Your task to perform on an android device: Open Google Chrome Image 0: 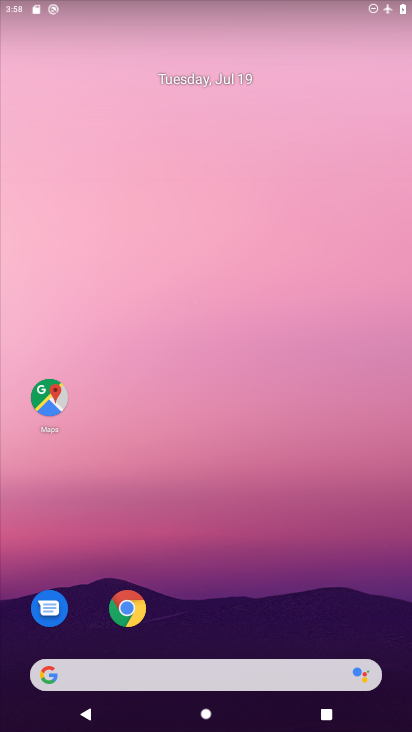
Step 0: drag from (265, 633) to (264, 105)
Your task to perform on an android device: Open Google Chrome Image 1: 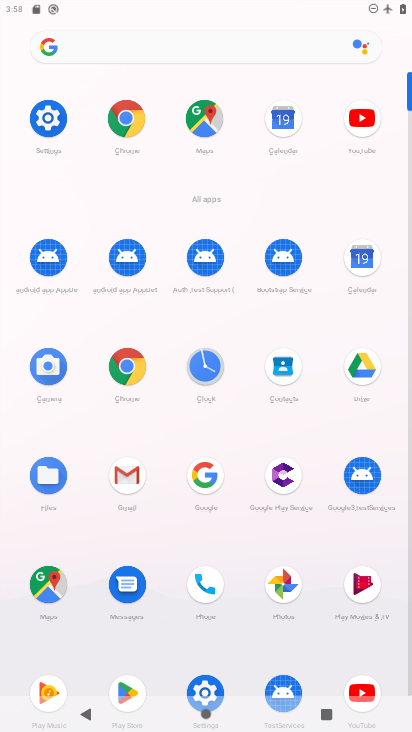
Step 1: click (118, 110)
Your task to perform on an android device: Open Google Chrome Image 2: 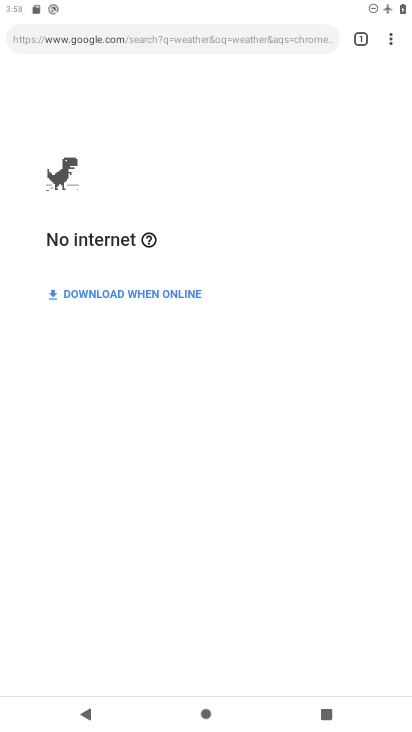
Step 2: task complete